Your task to perform on an android device: Go to Google maps Image 0: 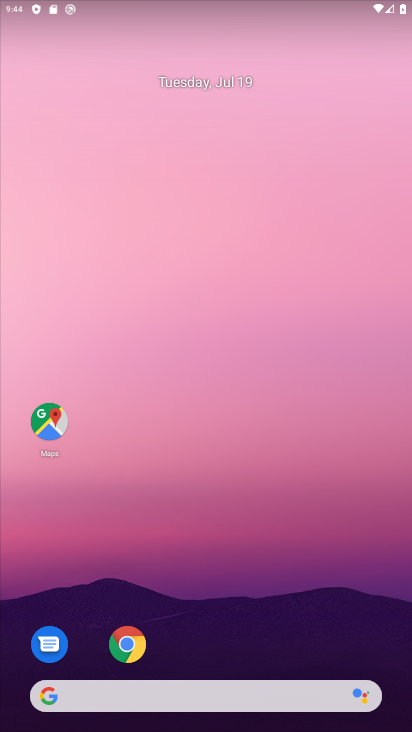
Step 0: click (51, 426)
Your task to perform on an android device: Go to Google maps Image 1: 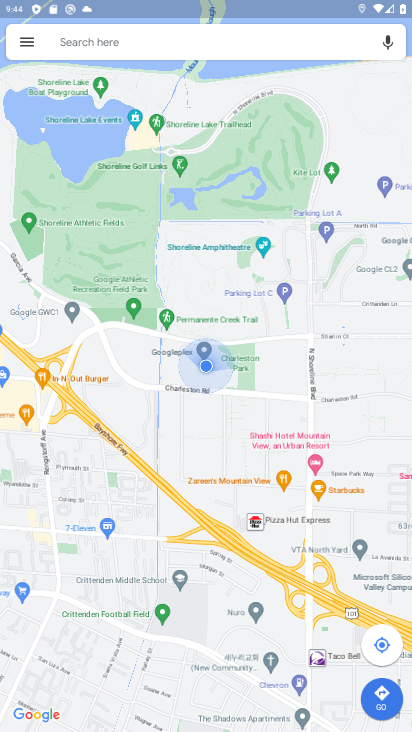
Step 1: task complete